Your task to perform on an android device: Go to calendar. Show me events next week Image 0: 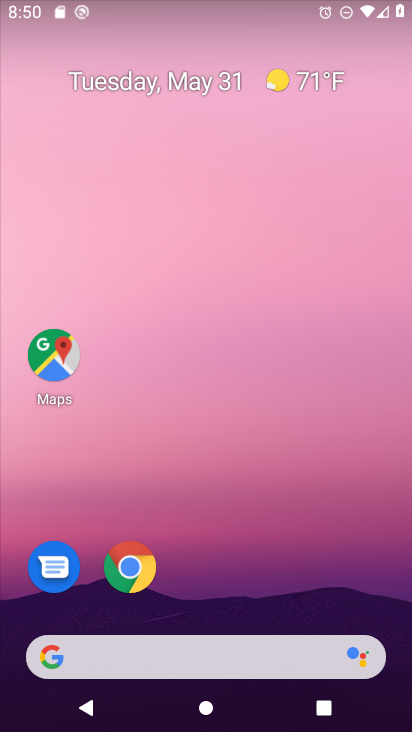
Step 0: drag from (267, 629) to (269, 218)
Your task to perform on an android device: Go to calendar. Show me events next week Image 1: 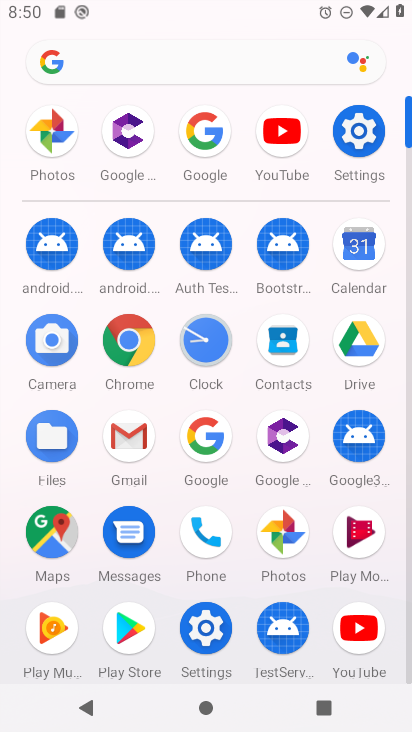
Step 1: click (363, 247)
Your task to perform on an android device: Go to calendar. Show me events next week Image 2: 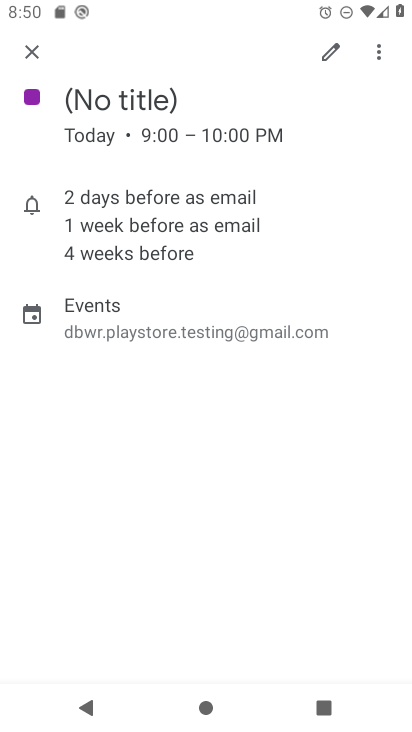
Step 2: click (33, 40)
Your task to perform on an android device: Go to calendar. Show me events next week Image 3: 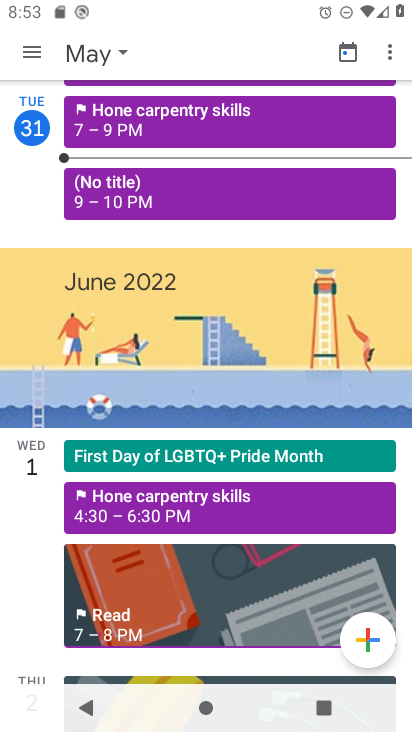
Step 3: click (90, 44)
Your task to perform on an android device: Go to calendar. Show me events next week Image 4: 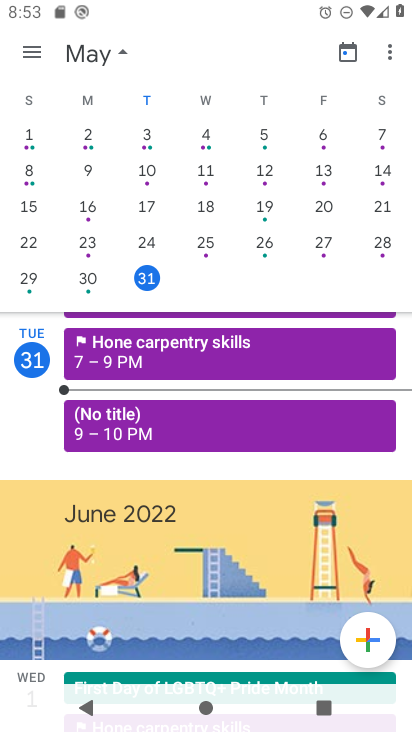
Step 4: drag from (346, 243) to (17, 269)
Your task to perform on an android device: Go to calendar. Show me events next week Image 5: 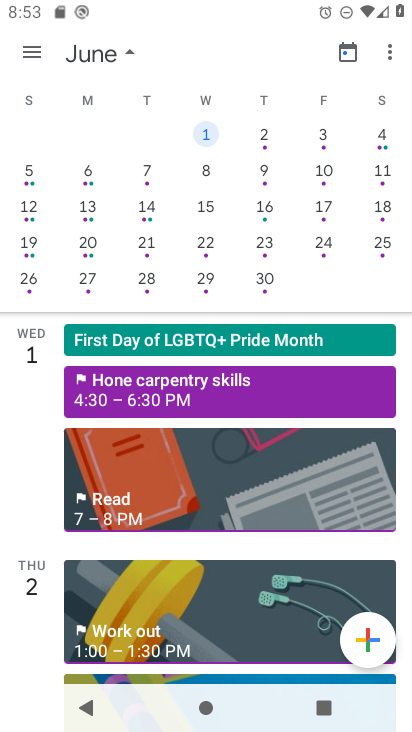
Step 5: click (17, 167)
Your task to perform on an android device: Go to calendar. Show me events next week Image 6: 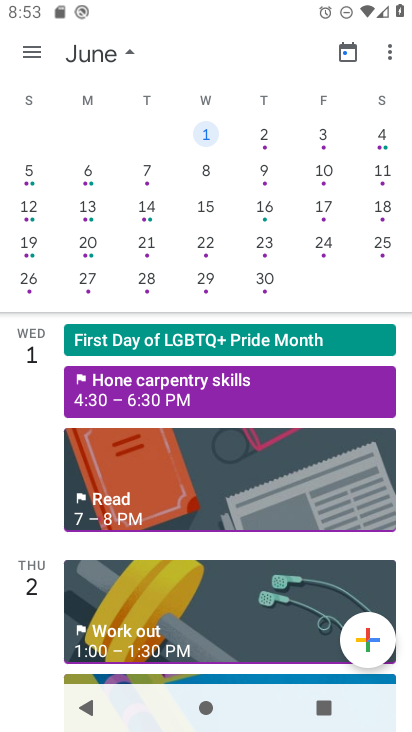
Step 6: click (34, 210)
Your task to perform on an android device: Go to calendar. Show me events next week Image 7: 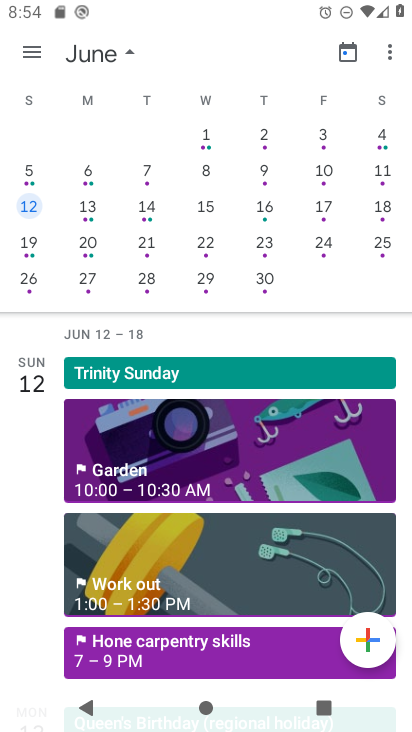
Step 7: task complete